Your task to perform on an android device: Open the Play Movies app and select the watchlist tab. Image 0: 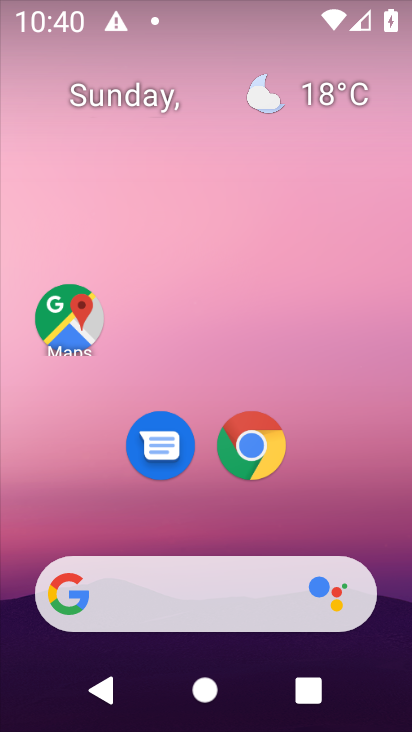
Step 0: drag from (161, 518) to (175, 1)
Your task to perform on an android device: Open the Play Movies app and select the watchlist tab. Image 1: 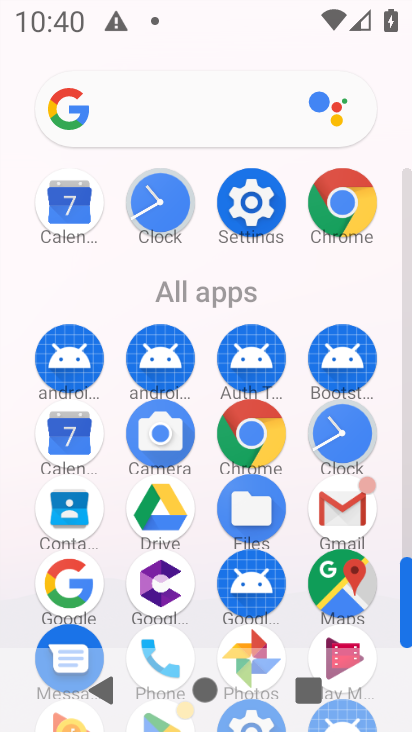
Step 1: click (342, 635)
Your task to perform on an android device: Open the Play Movies app and select the watchlist tab. Image 2: 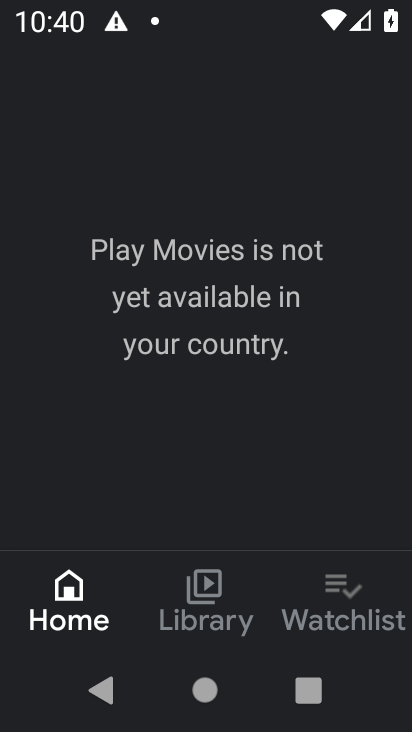
Step 2: click (353, 618)
Your task to perform on an android device: Open the Play Movies app and select the watchlist tab. Image 3: 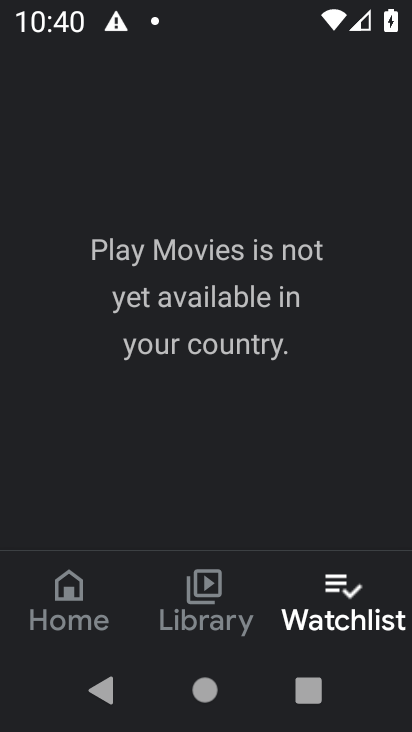
Step 3: task complete